Your task to perform on an android device: Open Google Maps Image 0: 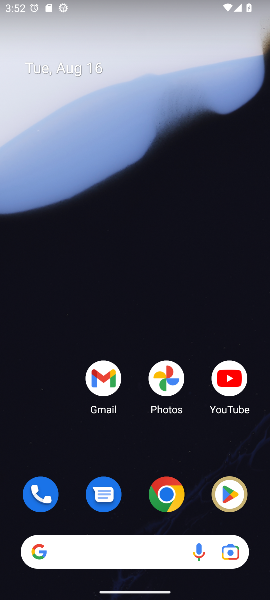
Step 0: drag from (145, 537) to (193, 8)
Your task to perform on an android device: Open Google Maps Image 1: 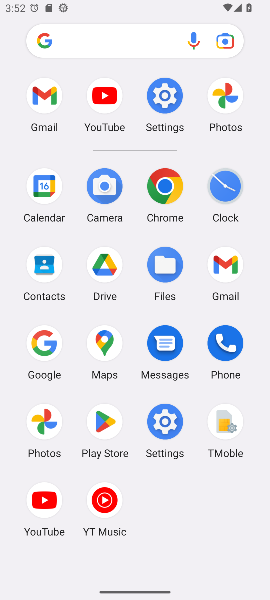
Step 1: click (98, 337)
Your task to perform on an android device: Open Google Maps Image 2: 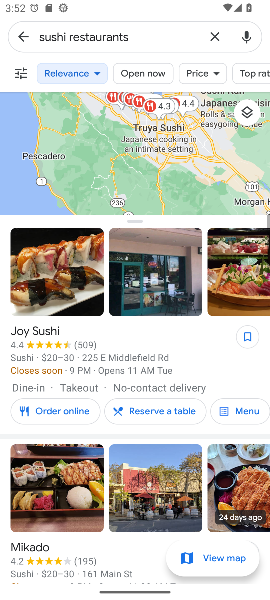
Step 2: click (71, 132)
Your task to perform on an android device: Open Google Maps Image 3: 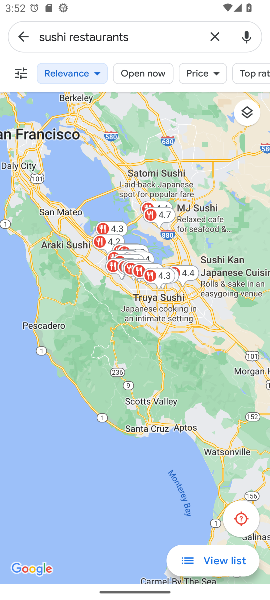
Step 3: task complete